Your task to perform on an android device: set default search engine in the chrome app Image 0: 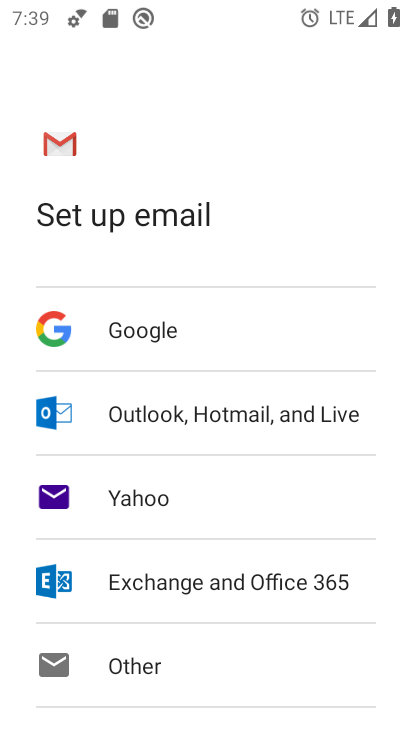
Step 0: press home button
Your task to perform on an android device: set default search engine in the chrome app Image 1: 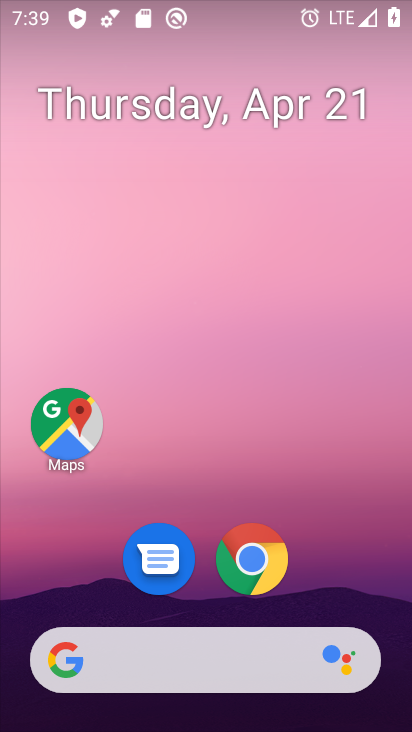
Step 1: drag from (367, 547) to (378, 138)
Your task to perform on an android device: set default search engine in the chrome app Image 2: 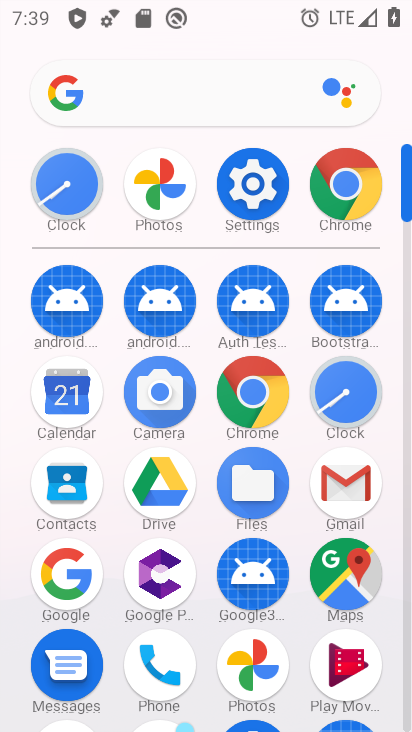
Step 2: click (263, 404)
Your task to perform on an android device: set default search engine in the chrome app Image 3: 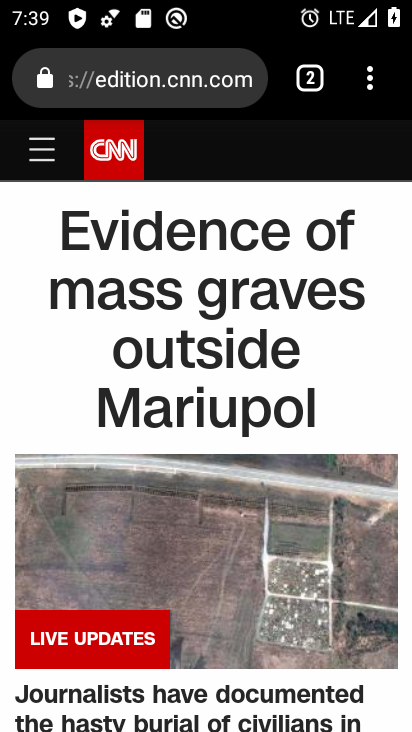
Step 3: click (368, 89)
Your task to perform on an android device: set default search engine in the chrome app Image 4: 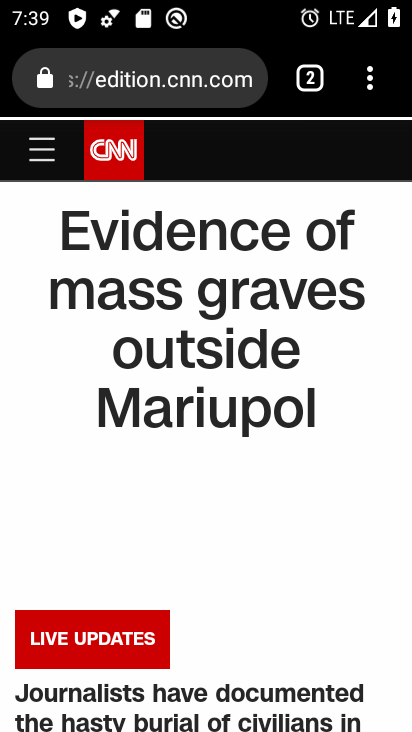
Step 4: drag from (369, 87) to (88, 614)
Your task to perform on an android device: set default search engine in the chrome app Image 5: 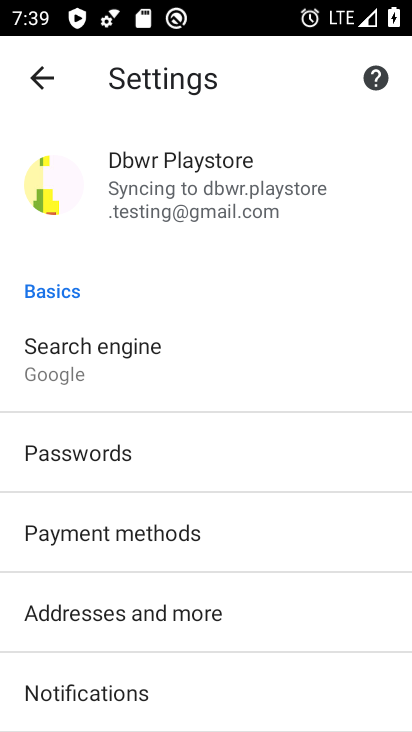
Step 5: click (133, 372)
Your task to perform on an android device: set default search engine in the chrome app Image 6: 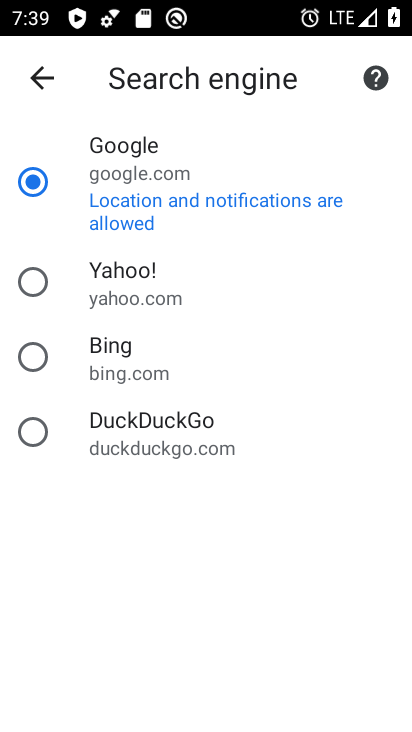
Step 6: task complete